Your task to perform on an android device: Check the weather Image 0: 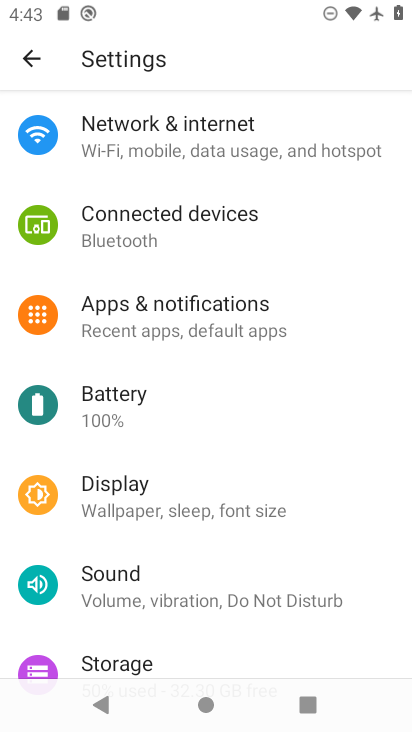
Step 0: press home button
Your task to perform on an android device: Check the weather Image 1: 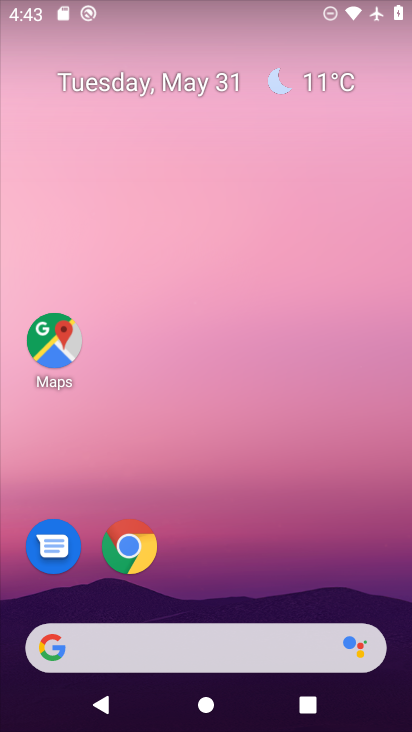
Step 1: click (319, 77)
Your task to perform on an android device: Check the weather Image 2: 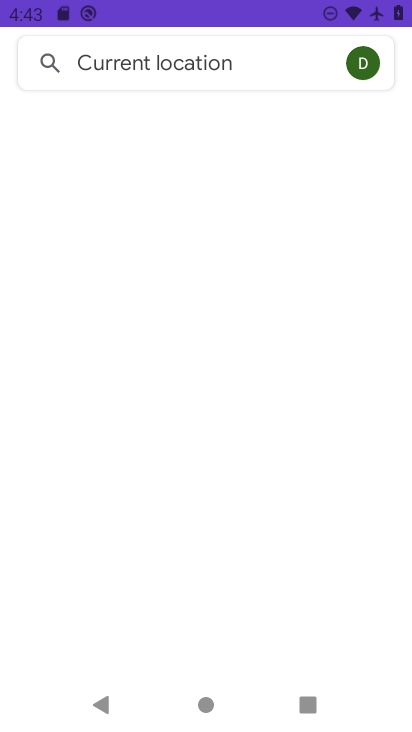
Step 2: task complete